Your task to perform on an android device: Open display settings Image 0: 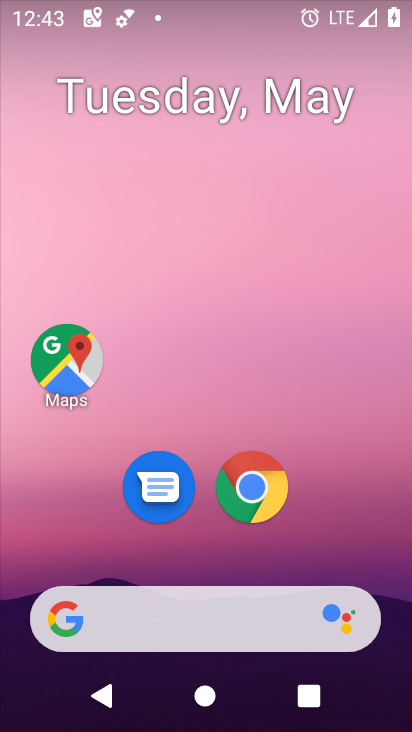
Step 0: drag from (116, 369) to (254, 146)
Your task to perform on an android device: Open display settings Image 1: 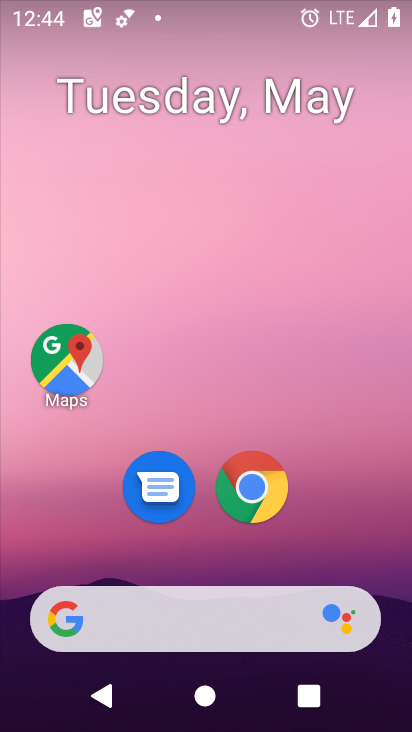
Step 1: drag from (34, 467) to (284, 169)
Your task to perform on an android device: Open display settings Image 2: 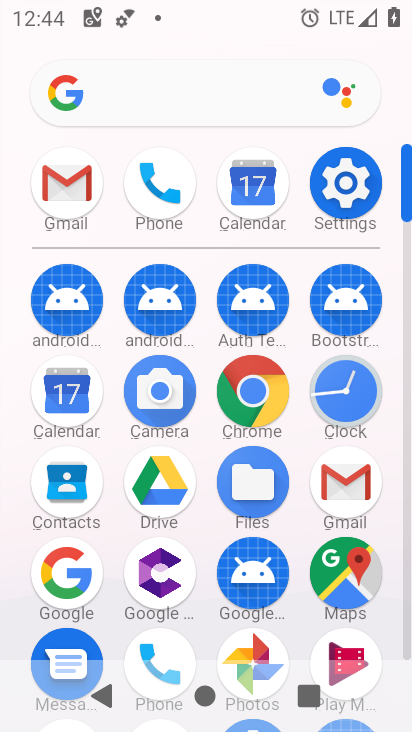
Step 2: click (360, 186)
Your task to perform on an android device: Open display settings Image 3: 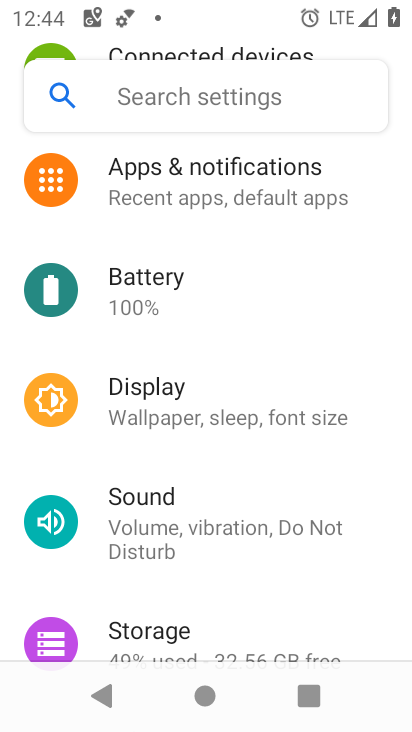
Step 3: click (165, 387)
Your task to perform on an android device: Open display settings Image 4: 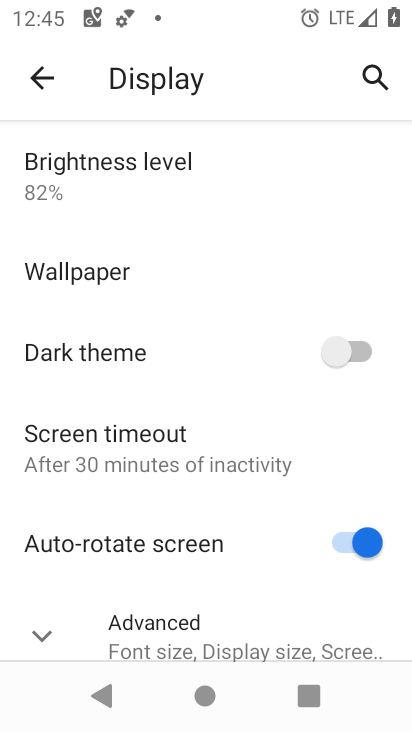
Step 4: task complete